Your task to perform on an android device: move an email to a new category in the gmail app Image 0: 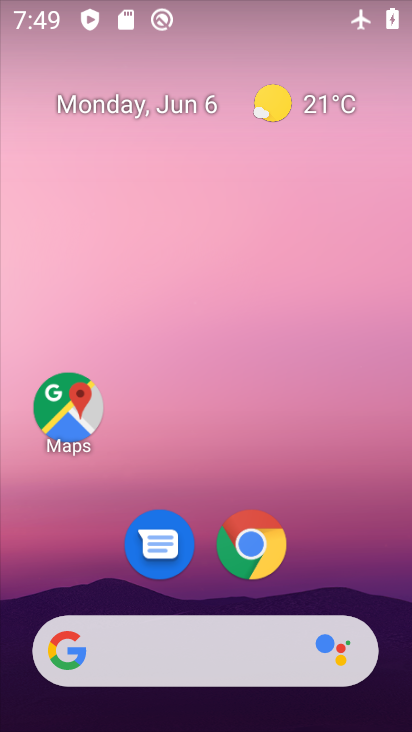
Step 0: drag from (187, 617) to (188, 265)
Your task to perform on an android device: move an email to a new category in the gmail app Image 1: 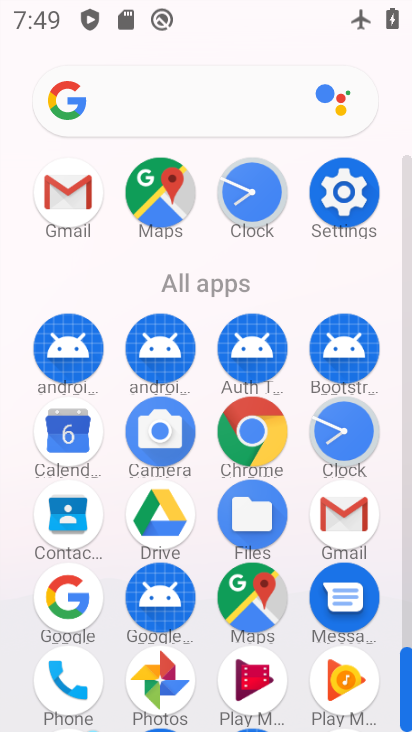
Step 1: click (338, 504)
Your task to perform on an android device: move an email to a new category in the gmail app Image 2: 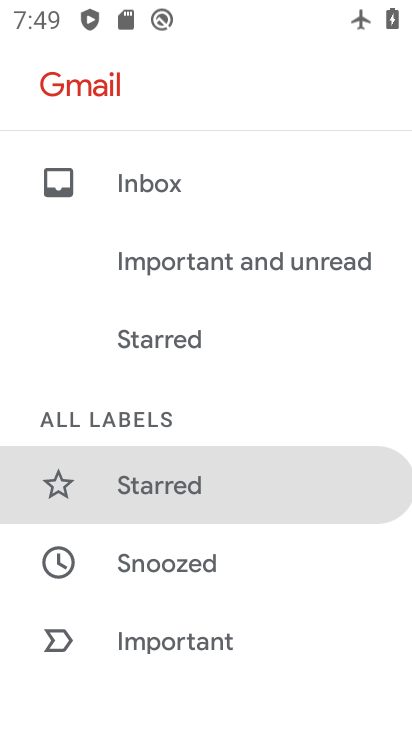
Step 2: drag from (174, 505) to (217, 162)
Your task to perform on an android device: move an email to a new category in the gmail app Image 3: 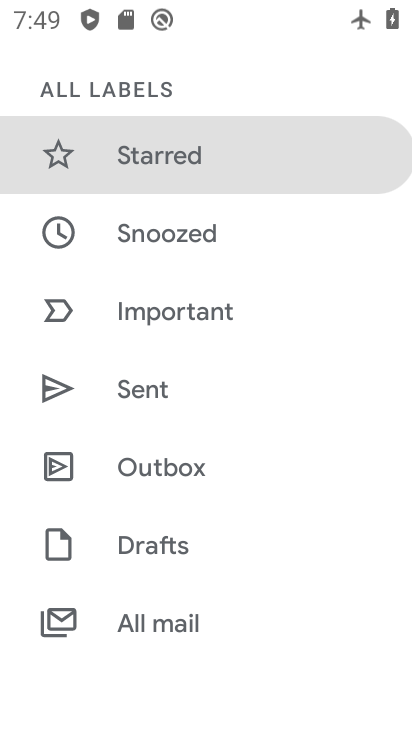
Step 3: drag from (170, 568) to (194, 318)
Your task to perform on an android device: move an email to a new category in the gmail app Image 4: 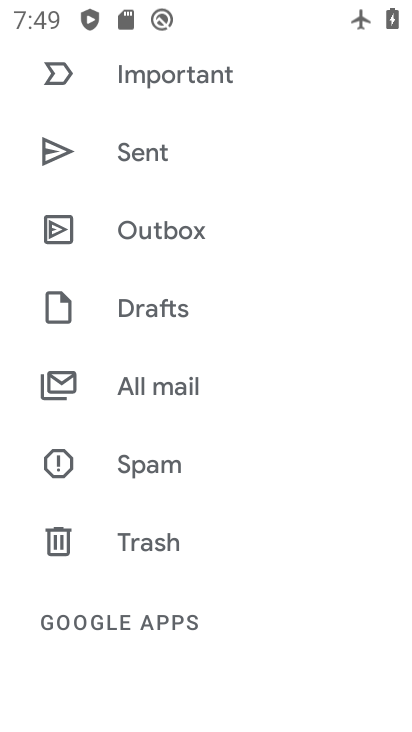
Step 4: click (145, 367)
Your task to perform on an android device: move an email to a new category in the gmail app Image 5: 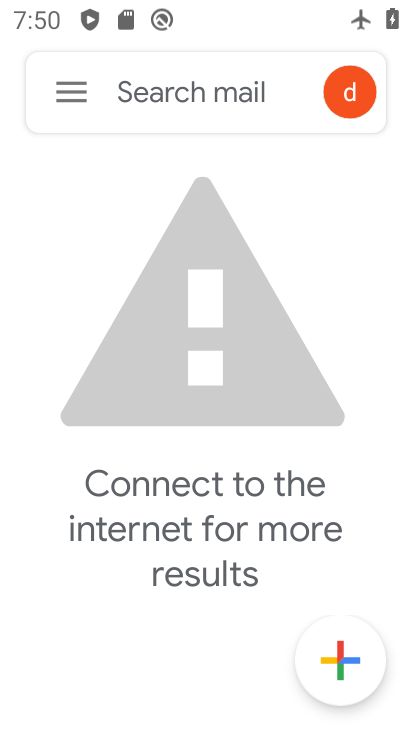
Step 5: click (58, 88)
Your task to perform on an android device: move an email to a new category in the gmail app Image 6: 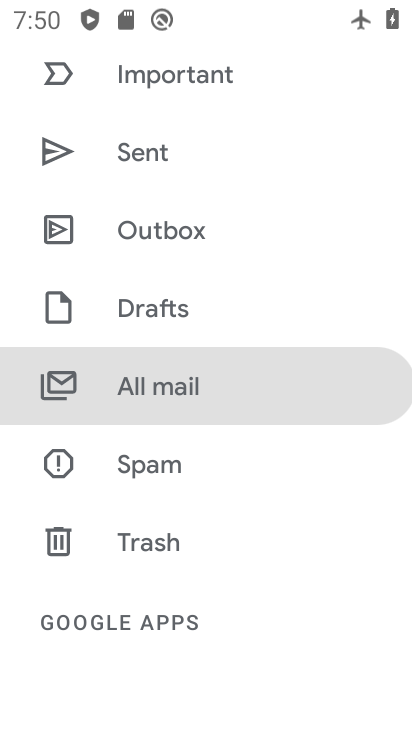
Step 6: click (174, 389)
Your task to perform on an android device: move an email to a new category in the gmail app Image 7: 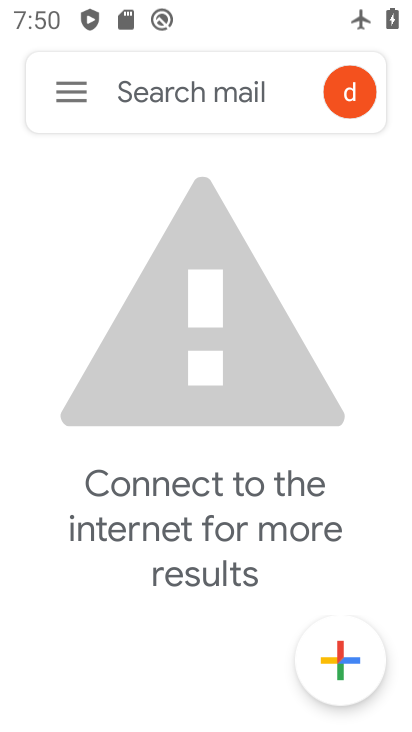
Step 7: task complete